Your task to perform on an android device: turn on javascript in the chrome app Image 0: 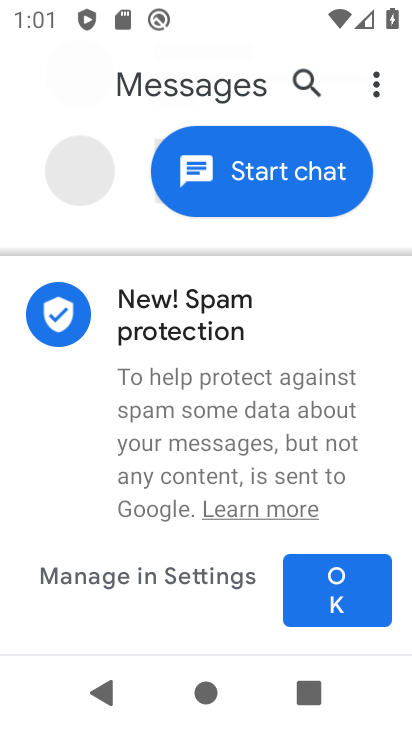
Step 0: press home button
Your task to perform on an android device: turn on javascript in the chrome app Image 1: 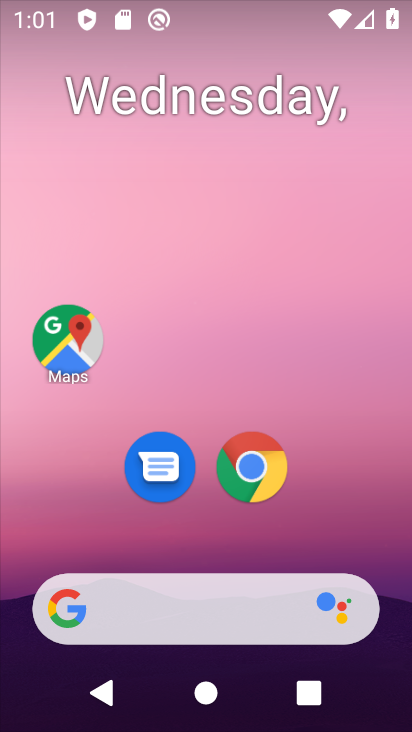
Step 1: click (258, 475)
Your task to perform on an android device: turn on javascript in the chrome app Image 2: 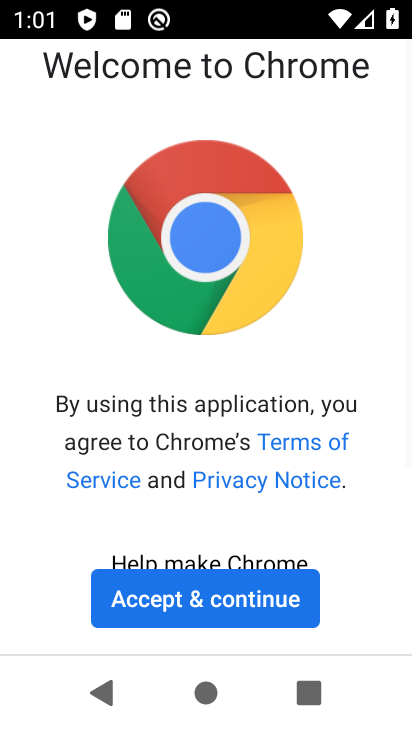
Step 2: click (267, 606)
Your task to perform on an android device: turn on javascript in the chrome app Image 3: 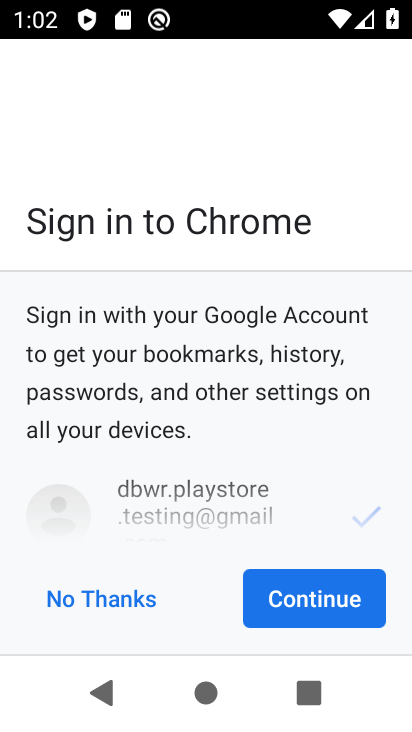
Step 3: click (329, 589)
Your task to perform on an android device: turn on javascript in the chrome app Image 4: 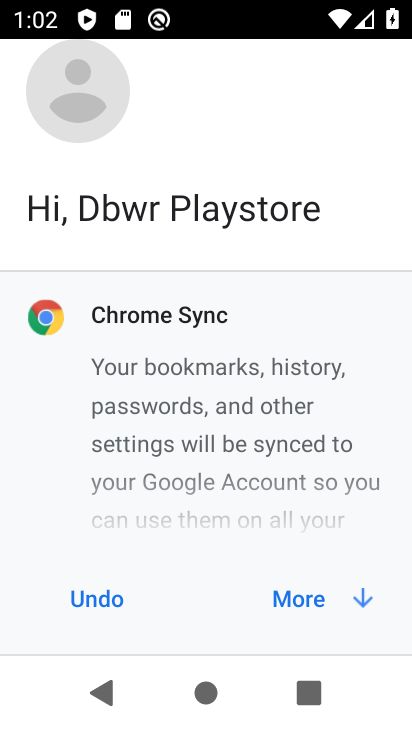
Step 4: click (334, 591)
Your task to perform on an android device: turn on javascript in the chrome app Image 5: 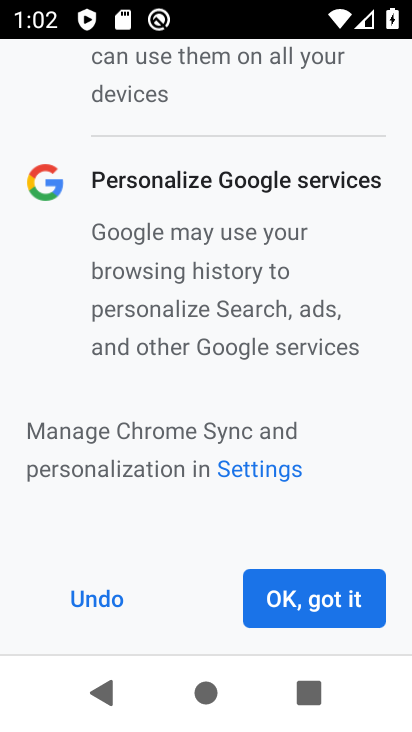
Step 5: click (337, 585)
Your task to perform on an android device: turn on javascript in the chrome app Image 6: 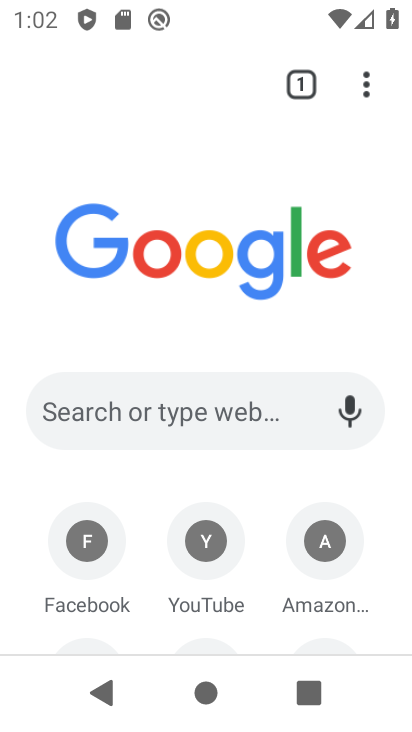
Step 6: click (373, 92)
Your task to perform on an android device: turn on javascript in the chrome app Image 7: 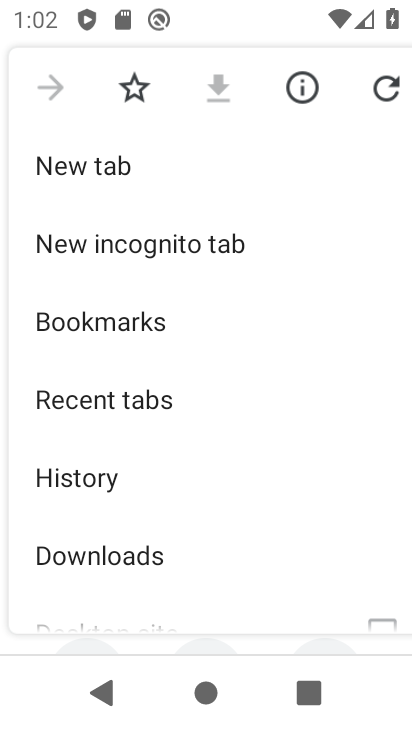
Step 7: drag from (238, 522) to (265, 48)
Your task to perform on an android device: turn on javascript in the chrome app Image 8: 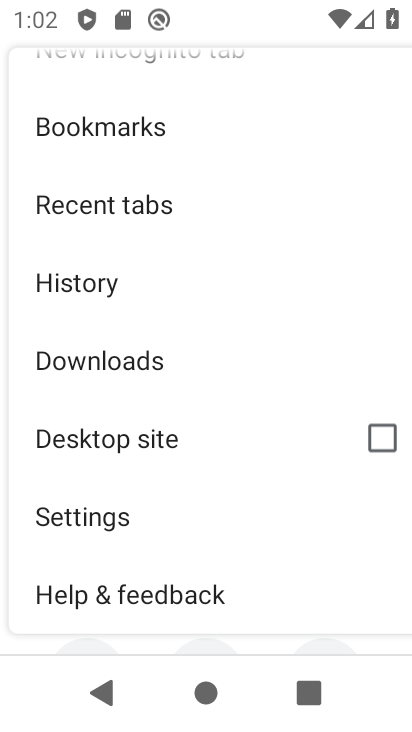
Step 8: click (209, 517)
Your task to perform on an android device: turn on javascript in the chrome app Image 9: 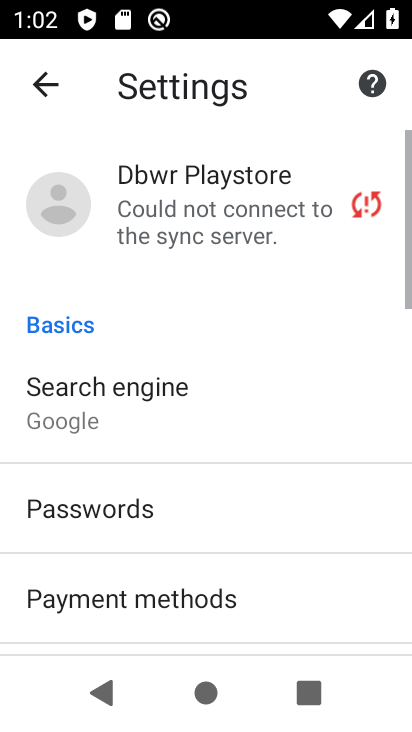
Step 9: drag from (254, 498) to (235, 92)
Your task to perform on an android device: turn on javascript in the chrome app Image 10: 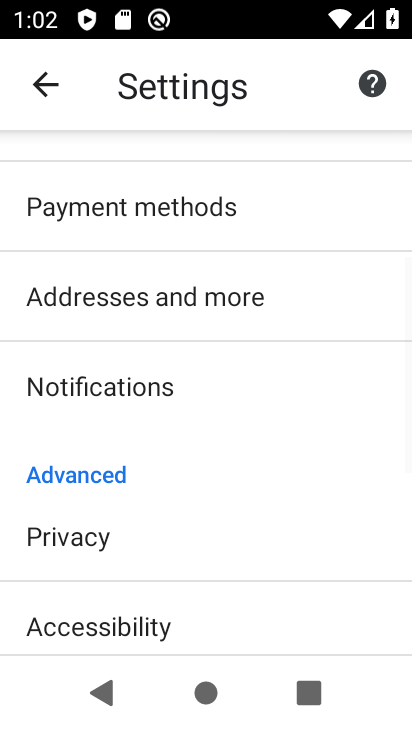
Step 10: drag from (232, 522) to (233, 132)
Your task to perform on an android device: turn on javascript in the chrome app Image 11: 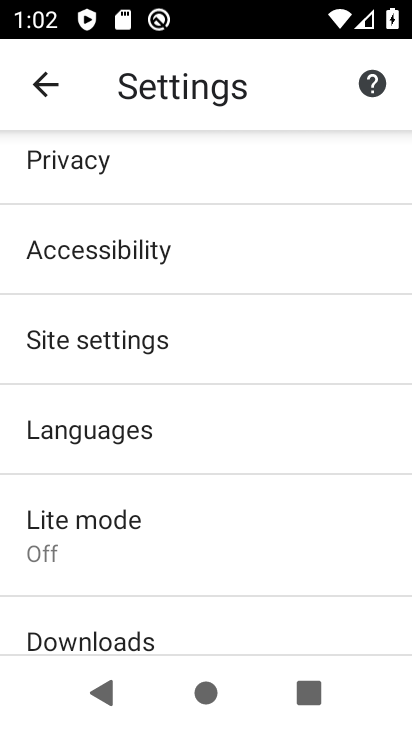
Step 11: click (186, 360)
Your task to perform on an android device: turn on javascript in the chrome app Image 12: 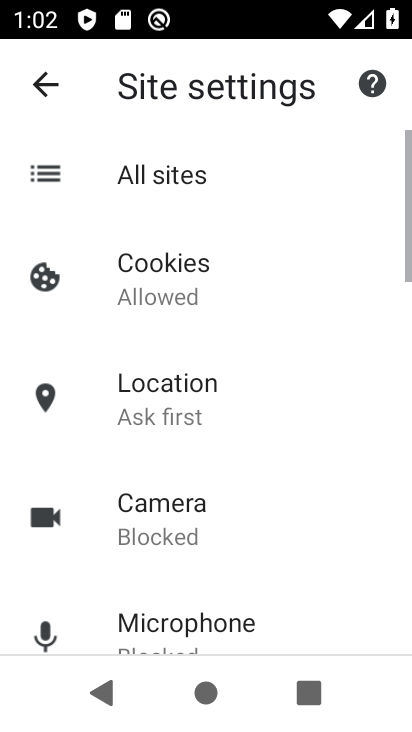
Step 12: drag from (246, 603) to (221, 182)
Your task to perform on an android device: turn on javascript in the chrome app Image 13: 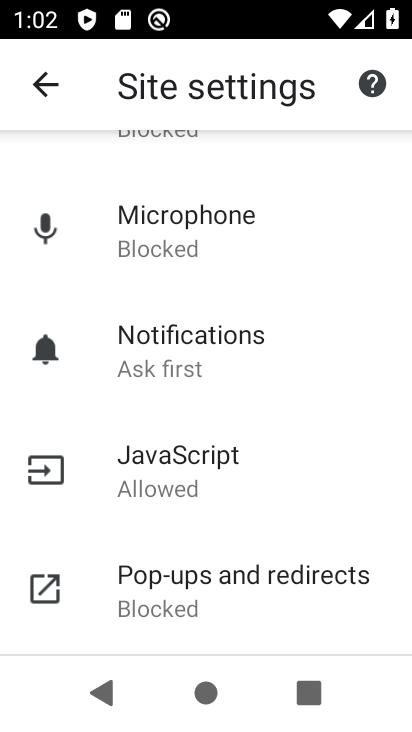
Step 13: click (225, 476)
Your task to perform on an android device: turn on javascript in the chrome app Image 14: 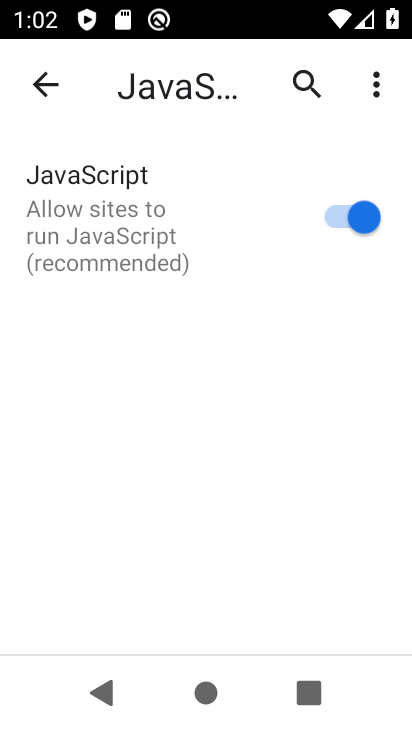
Step 14: task complete